Your task to perform on an android device: snooze an email in the gmail app Image 0: 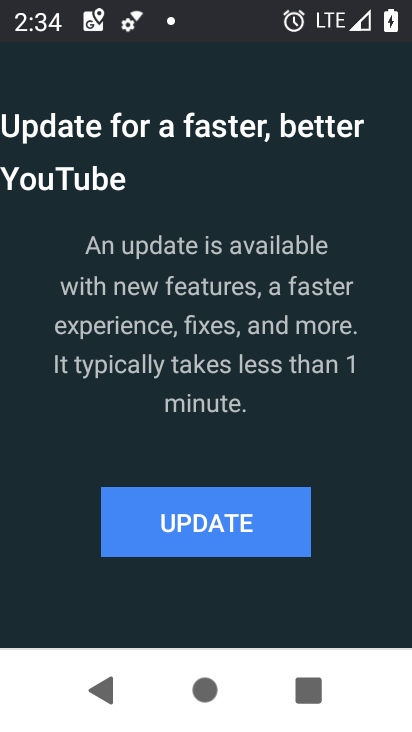
Step 0: press home button
Your task to perform on an android device: snooze an email in the gmail app Image 1: 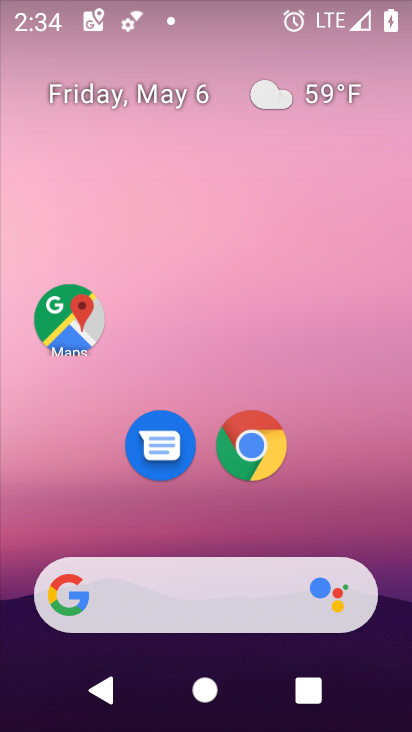
Step 1: drag from (276, 527) to (381, 10)
Your task to perform on an android device: snooze an email in the gmail app Image 2: 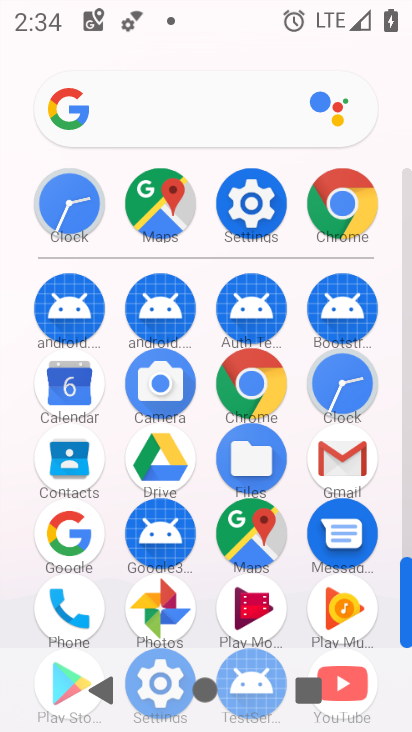
Step 2: click (343, 467)
Your task to perform on an android device: snooze an email in the gmail app Image 3: 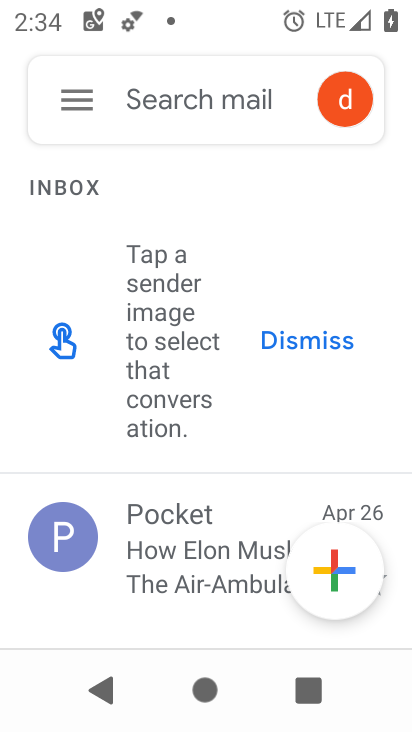
Step 3: drag from (150, 501) to (161, 192)
Your task to perform on an android device: snooze an email in the gmail app Image 4: 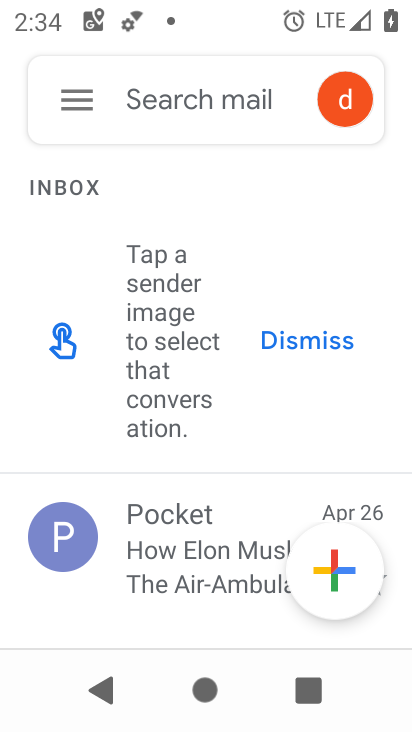
Step 4: click (183, 504)
Your task to perform on an android device: snooze an email in the gmail app Image 5: 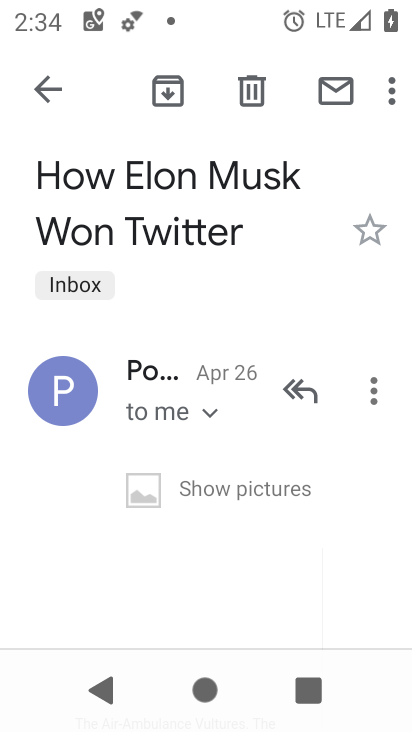
Step 5: click (389, 93)
Your task to perform on an android device: snooze an email in the gmail app Image 6: 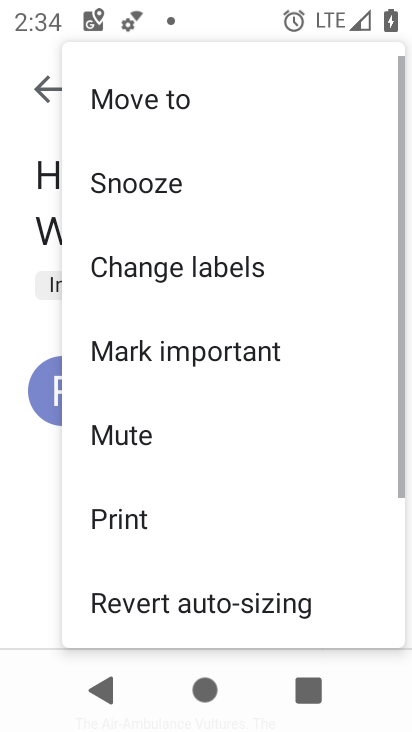
Step 6: click (142, 187)
Your task to perform on an android device: snooze an email in the gmail app Image 7: 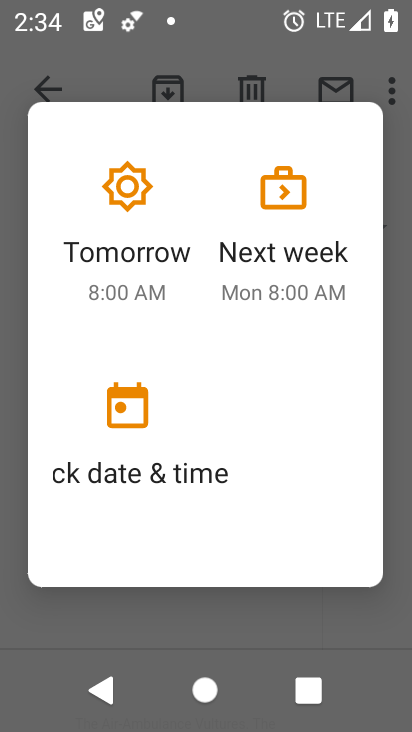
Step 7: click (125, 236)
Your task to perform on an android device: snooze an email in the gmail app Image 8: 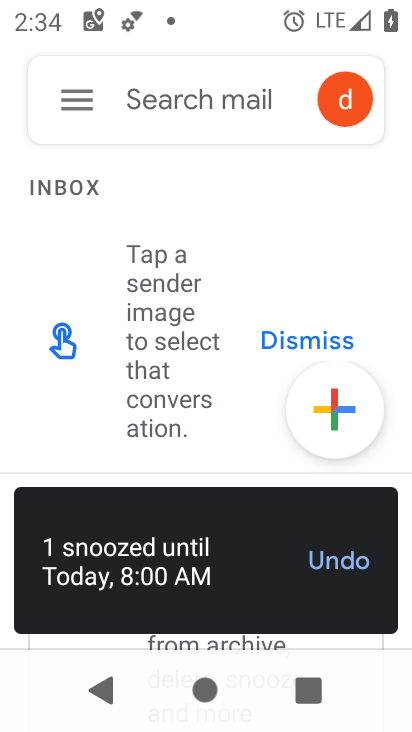
Step 8: task complete